Your task to perform on an android device: change your default location settings in chrome Image 0: 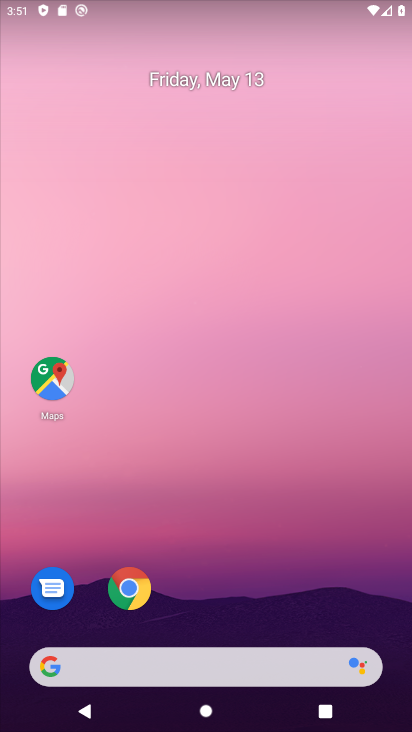
Step 0: click (144, 587)
Your task to perform on an android device: change your default location settings in chrome Image 1: 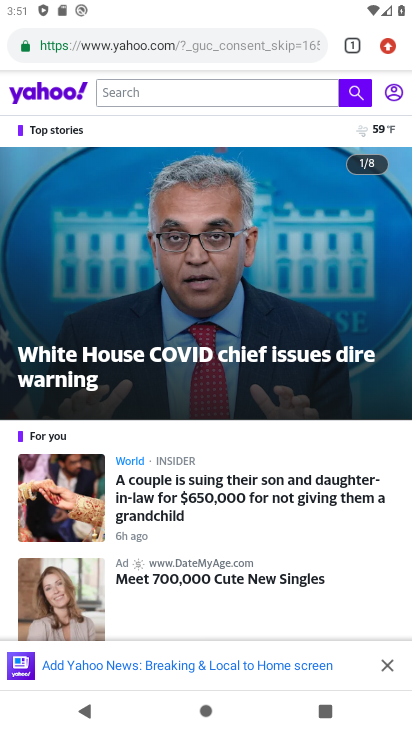
Step 1: click (390, 49)
Your task to perform on an android device: change your default location settings in chrome Image 2: 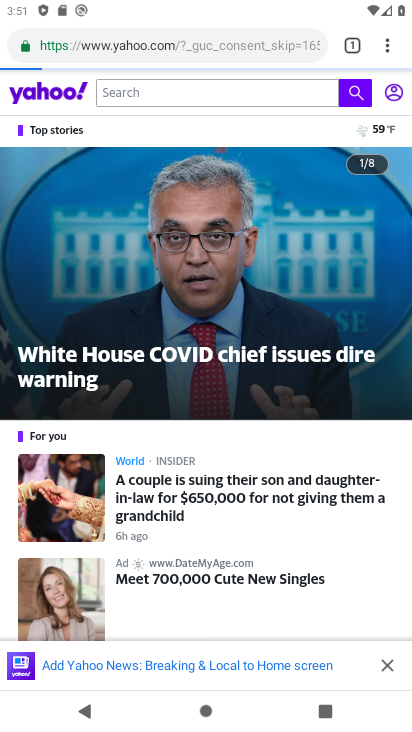
Step 2: drag from (385, 48) to (288, 602)
Your task to perform on an android device: change your default location settings in chrome Image 3: 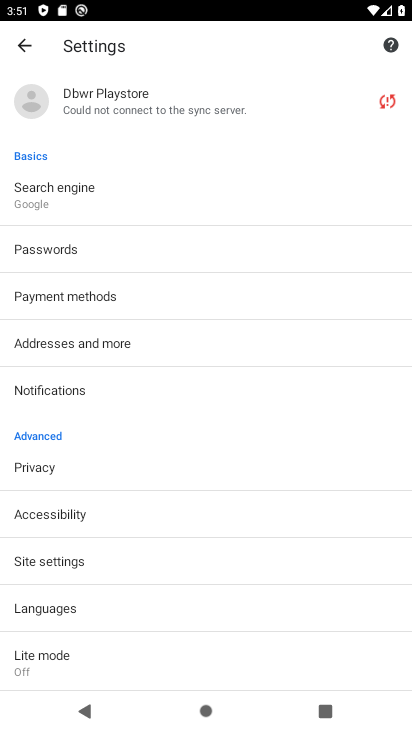
Step 3: click (82, 574)
Your task to perform on an android device: change your default location settings in chrome Image 4: 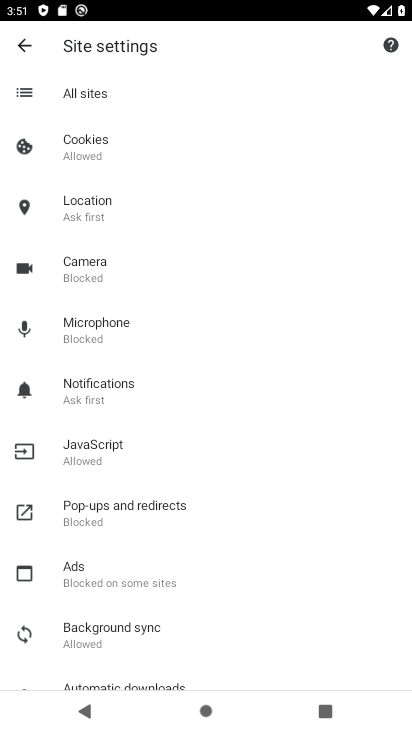
Step 4: click (85, 207)
Your task to perform on an android device: change your default location settings in chrome Image 5: 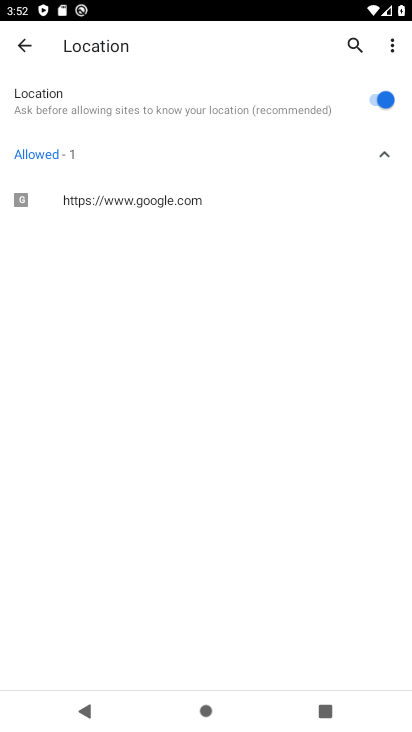
Step 5: click (389, 95)
Your task to perform on an android device: change your default location settings in chrome Image 6: 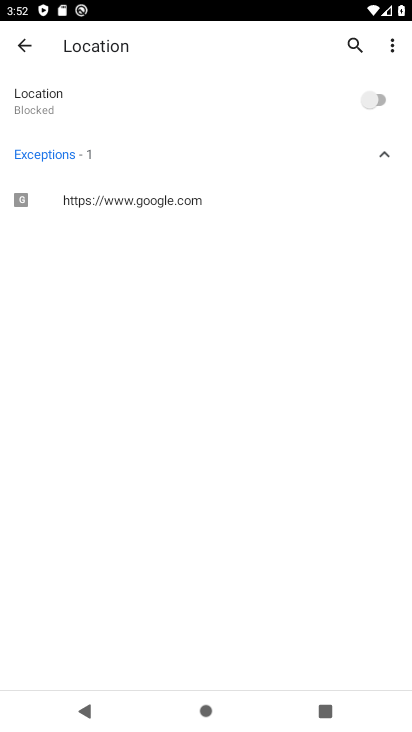
Step 6: task complete